Your task to perform on an android device: add a label to a message in the gmail app Image 0: 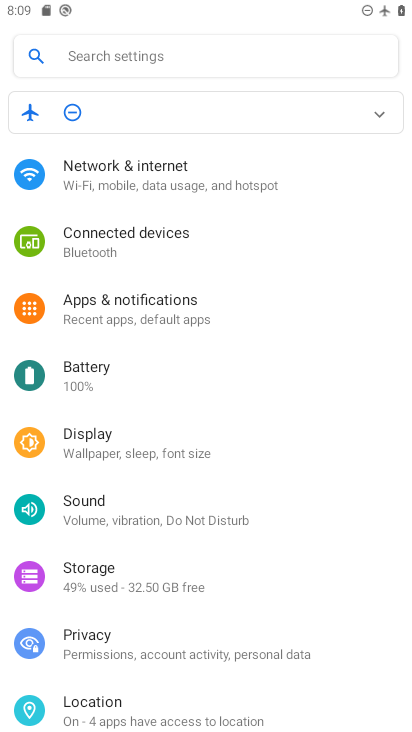
Step 0: press home button
Your task to perform on an android device: add a label to a message in the gmail app Image 1: 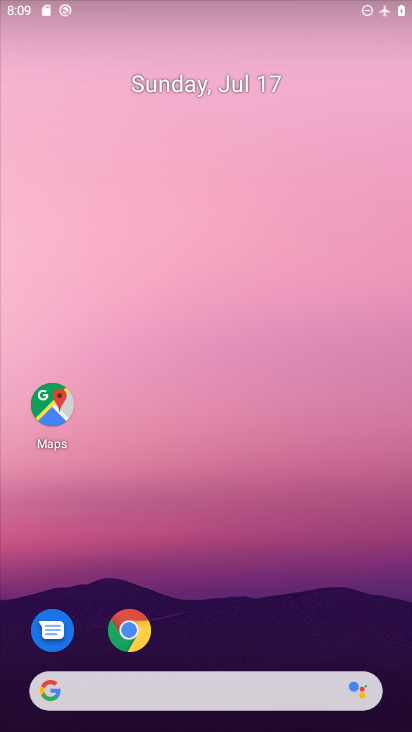
Step 1: drag from (375, 646) to (204, 9)
Your task to perform on an android device: add a label to a message in the gmail app Image 2: 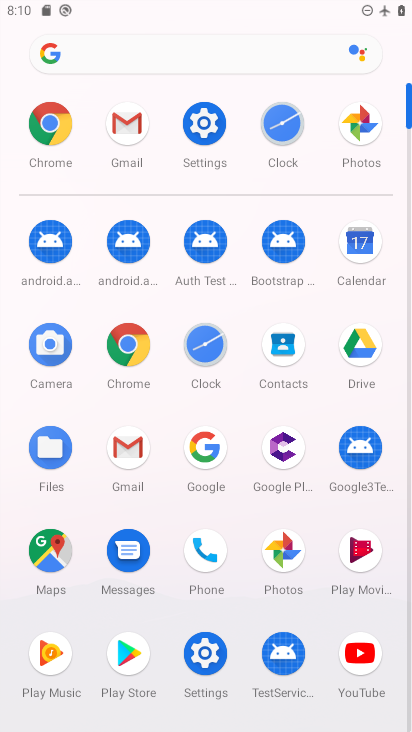
Step 2: click (140, 431)
Your task to perform on an android device: add a label to a message in the gmail app Image 3: 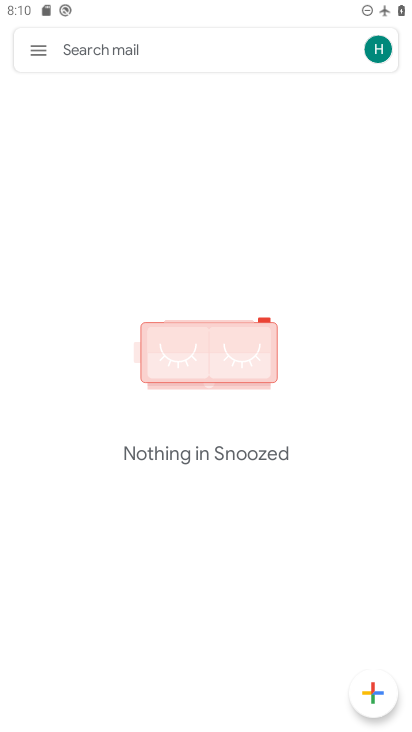
Step 3: task complete